Your task to perform on an android device: Open maps Image 0: 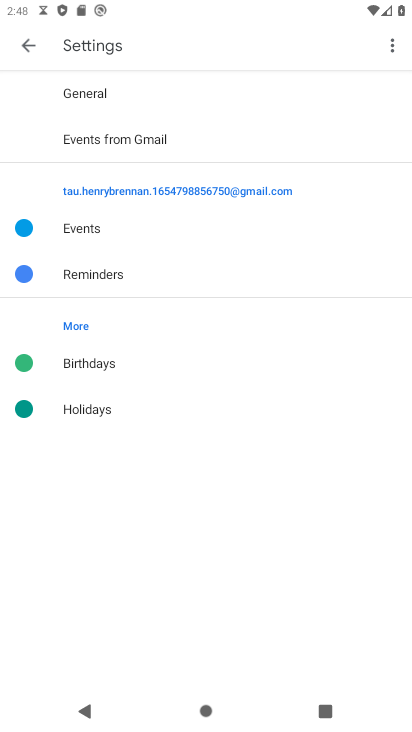
Step 0: press home button
Your task to perform on an android device: Open maps Image 1: 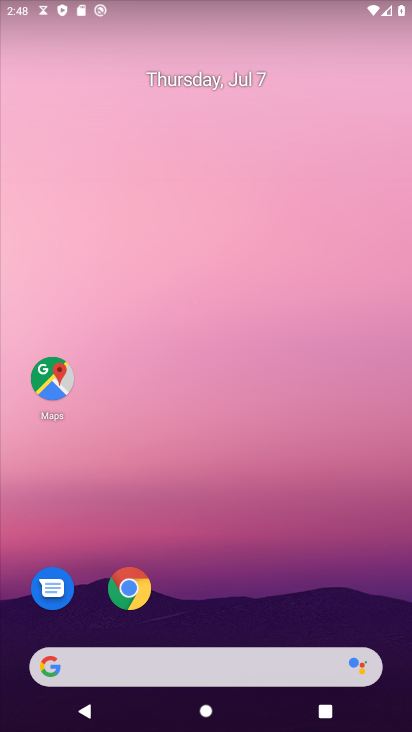
Step 1: click (51, 376)
Your task to perform on an android device: Open maps Image 2: 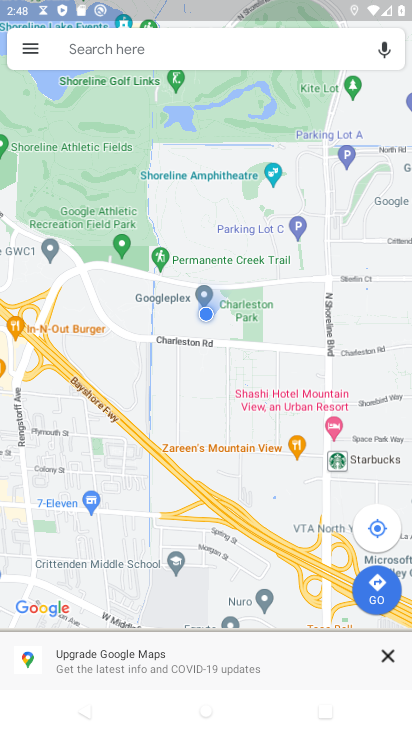
Step 2: task complete